Your task to perform on an android device: allow cookies in the chrome app Image 0: 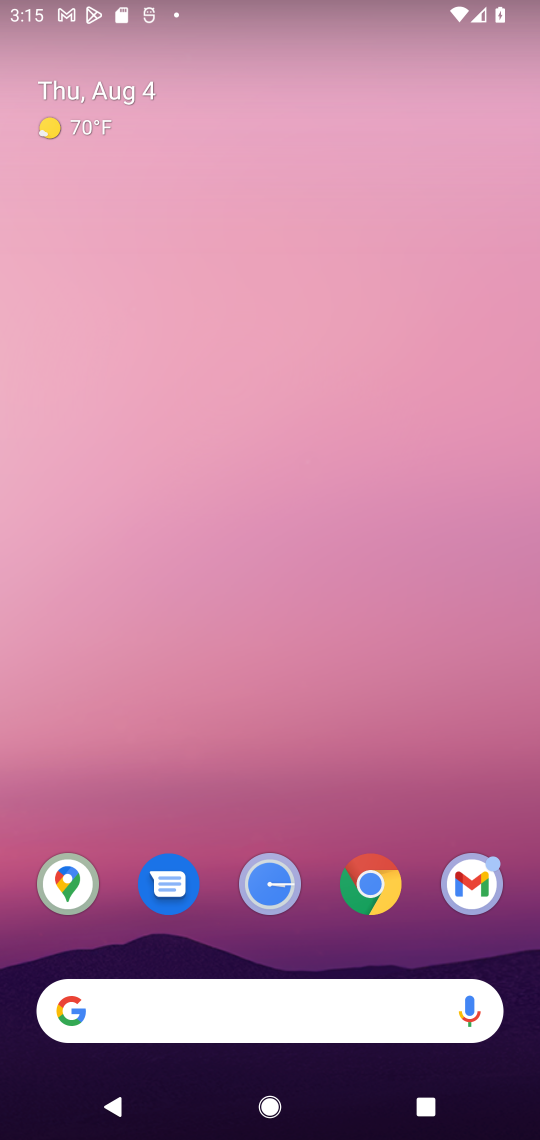
Step 0: click (391, 895)
Your task to perform on an android device: allow cookies in the chrome app Image 1: 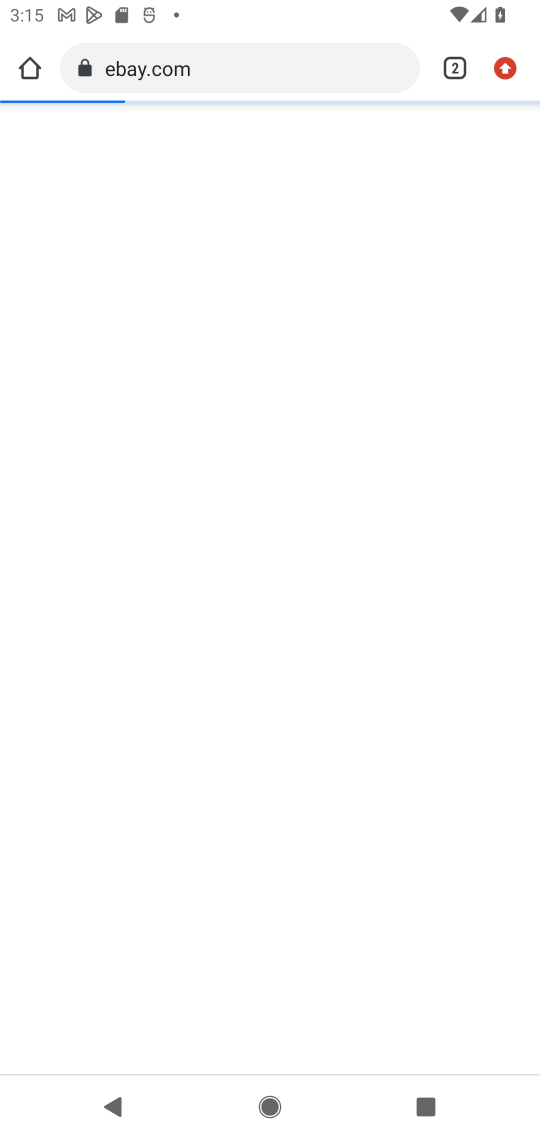
Step 1: click (509, 73)
Your task to perform on an android device: allow cookies in the chrome app Image 2: 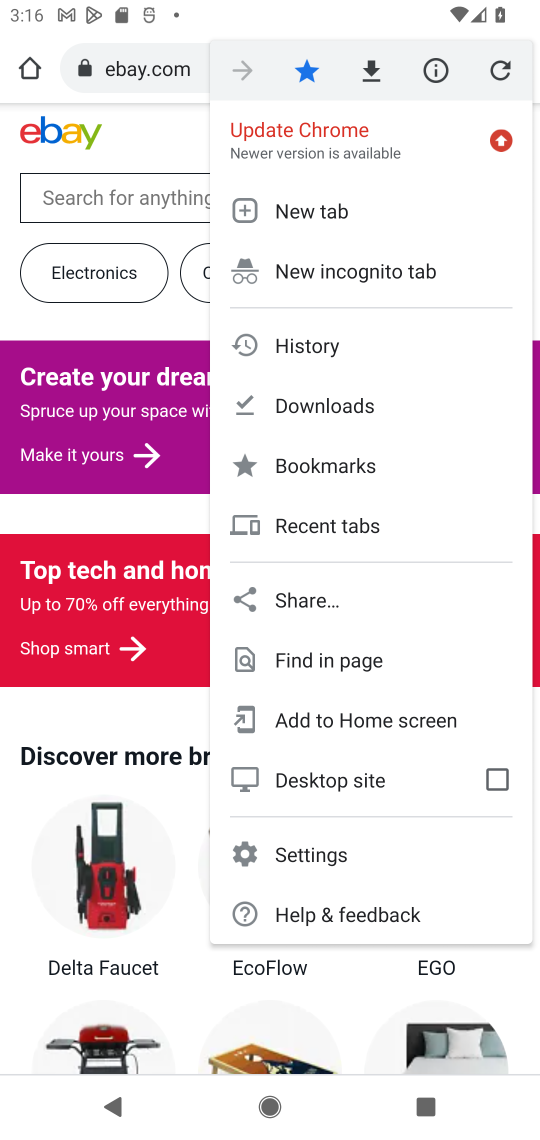
Step 2: click (316, 864)
Your task to perform on an android device: allow cookies in the chrome app Image 3: 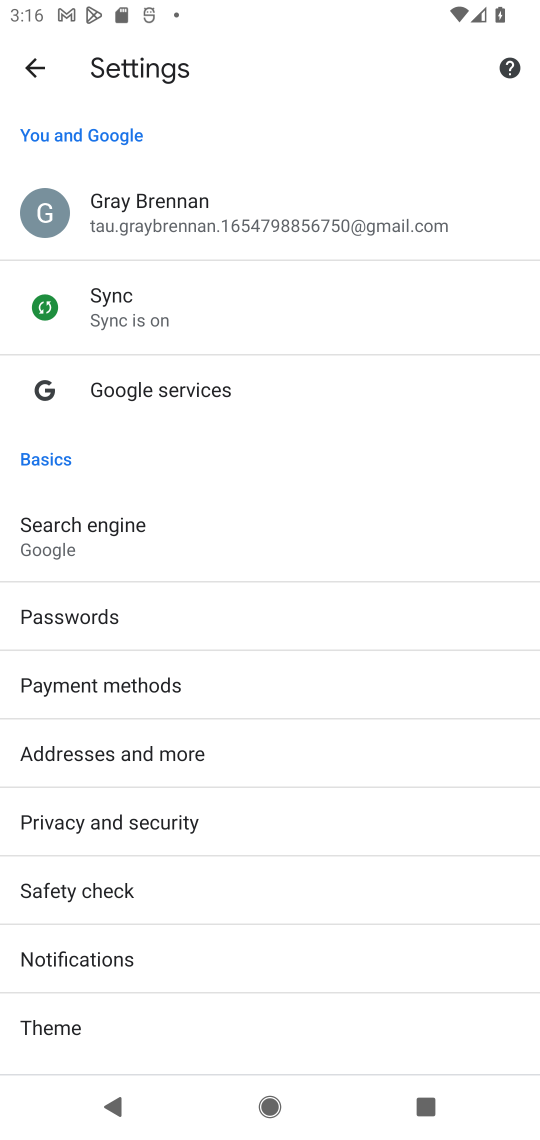
Step 3: task complete